Your task to perform on an android device: Empty the shopping cart on target. Add logitech g pro to the cart on target, then select checkout. Image 0: 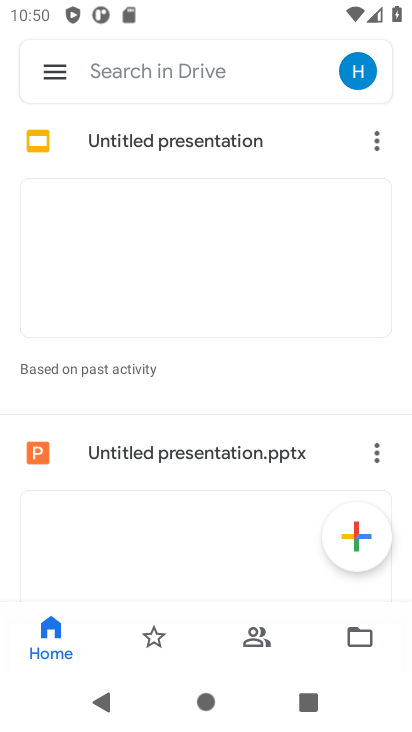
Step 0: press home button
Your task to perform on an android device: Empty the shopping cart on target. Add logitech g pro to the cart on target, then select checkout. Image 1: 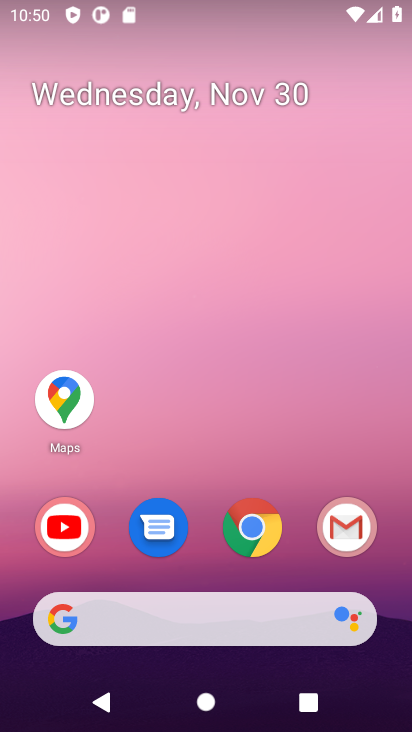
Step 1: click (251, 535)
Your task to perform on an android device: Empty the shopping cart on target. Add logitech g pro to the cart on target, then select checkout. Image 2: 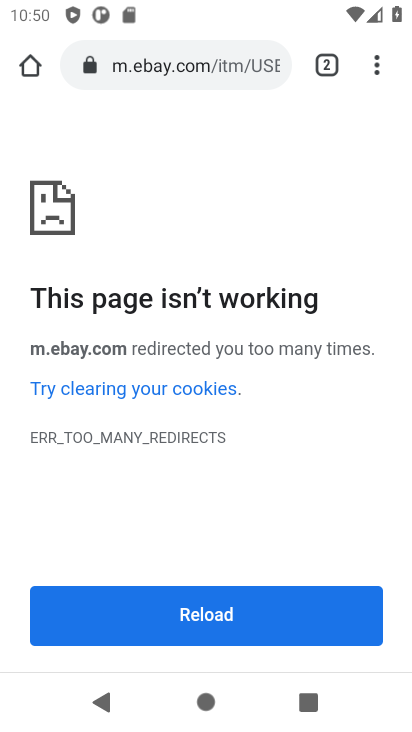
Step 2: click (144, 68)
Your task to perform on an android device: Empty the shopping cart on target. Add logitech g pro to the cart on target, then select checkout. Image 3: 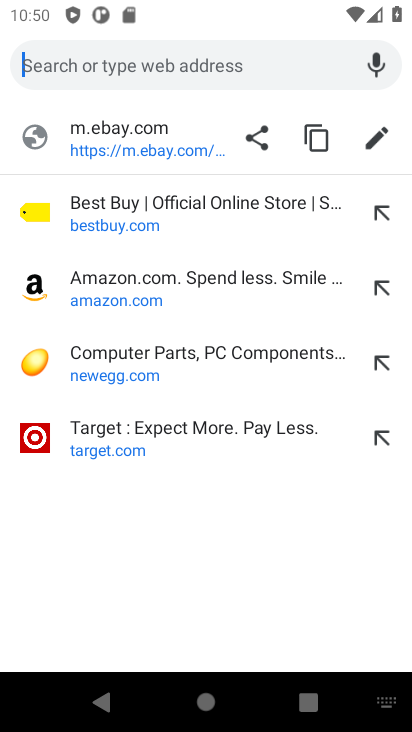
Step 3: click (94, 435)
Your task to perform on an android device: Empty the shopping cart on target. Add logitech g pro to the cart on target, then select checkout. Image 4: 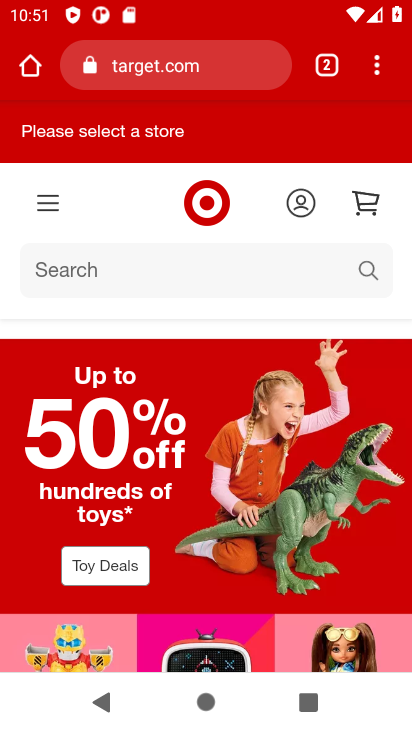
Step 4: click (363, 204)
Your task to perform on an android device: Empty the shopping cart on target. Add logitech g pro to the cart on target, then select checkout. Image 5: 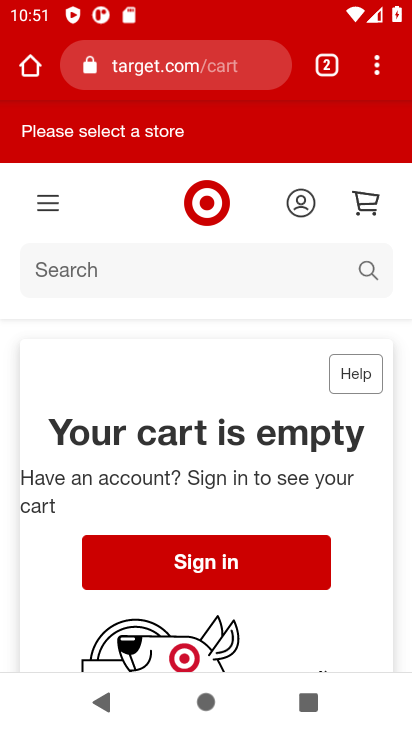
Step 5: click (58, 269)
Your task to perform on an android device: Empty the shopping cart on target. Add logitech g pro to the cart on target, then select checkout. Image 6: 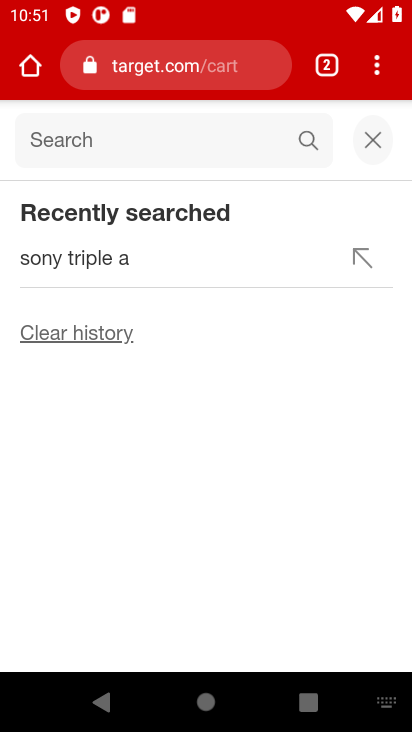
Step 6: type " logitech g pro "
Your task to perform on an android device: Empty the shopping cart on target. Add logitech g pro to the cart on target, then select checkout. Image 7: 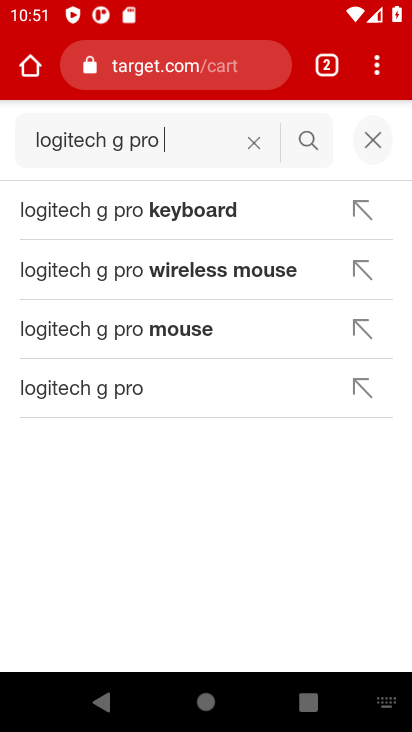
Step 7: click (79, 385)
Your task to perform on an android device: Empty the shopping cart on target. Add logitech g pro to the cart on target, then select checkout. Image 8: 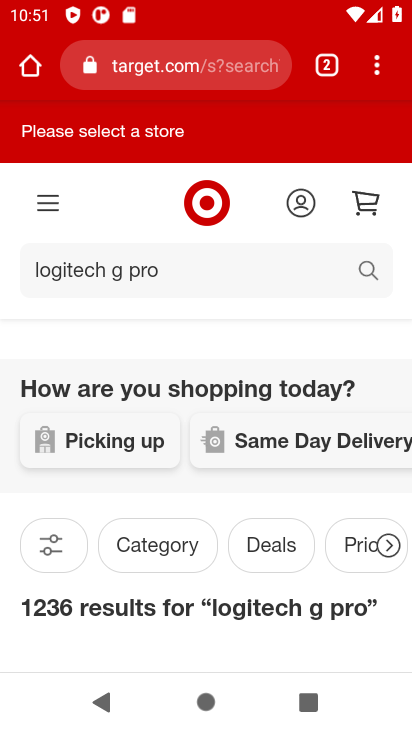
Step 8: task complete